Your task to perform on an android device: turn on notifications settings in the gmail app Image 0: 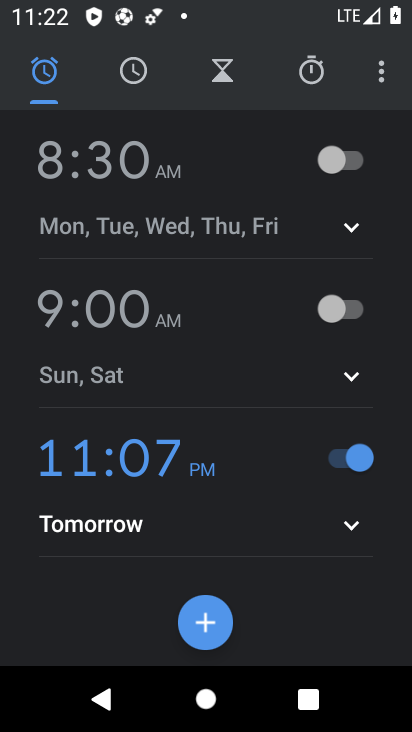
Step 0: press home button
Your task to perform on an android device: turn on notifications settings in the gmail app Image 1: 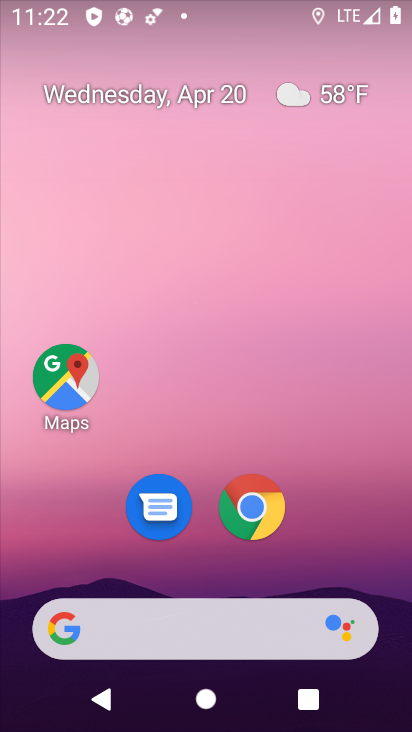
Step 1: drag from (332, 530) to (330, 100)
Your task to perform on an android device: turn on notifications settings in the gmail app Image 2: 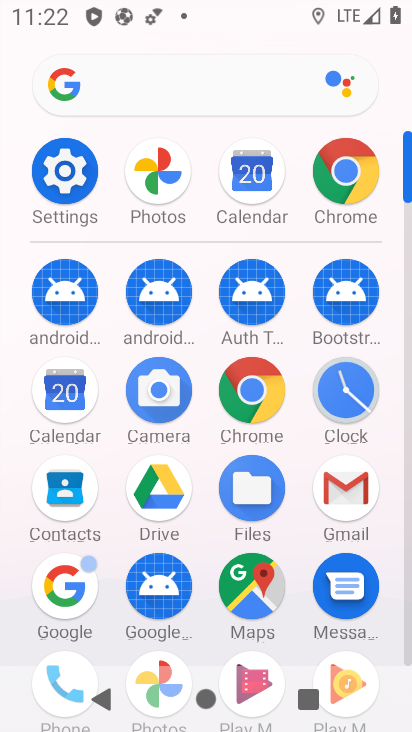
Step 2: click (364, 488)
Your task to perform on an android device: turn on notifications settings in the gmail app Image 3: 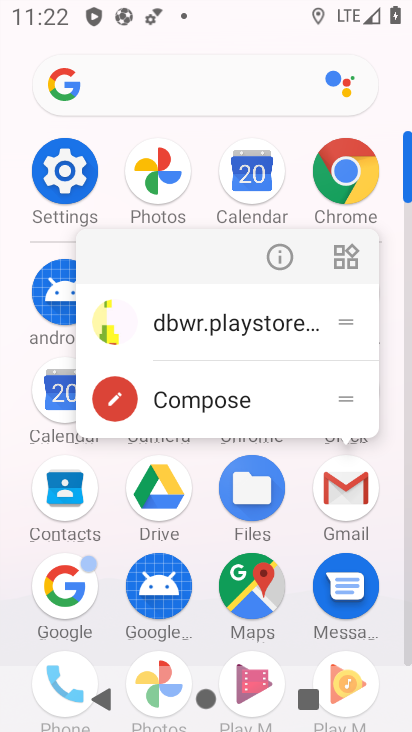
Step 3: click (343, 477)
Your task to perform on an android device: turn on notifications settings in the gmail app Image 4: 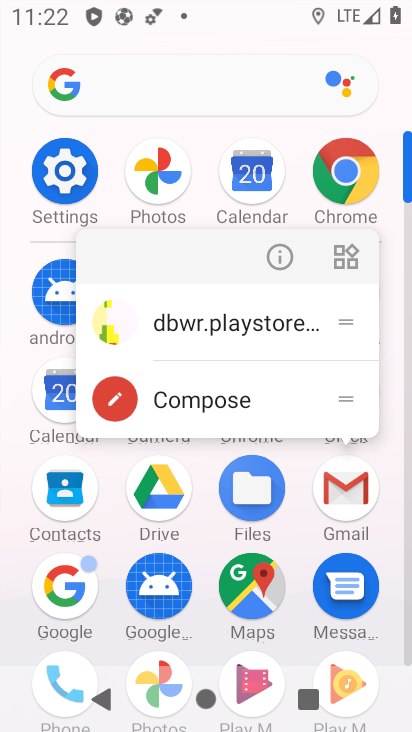
Step 4: click (352, 482)
Your task to perform on an android device: turn on notifications settings in the gmail app Image 5: 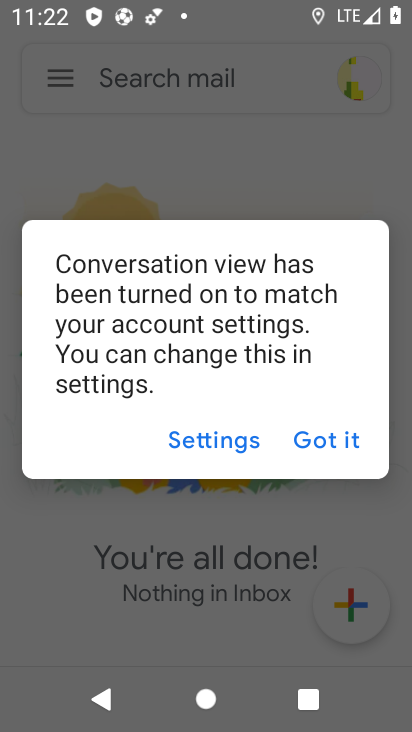
Step 5: click (346, 450)
Your task to perform on an android device: turn on notifications settings in the gmail app Image 6: 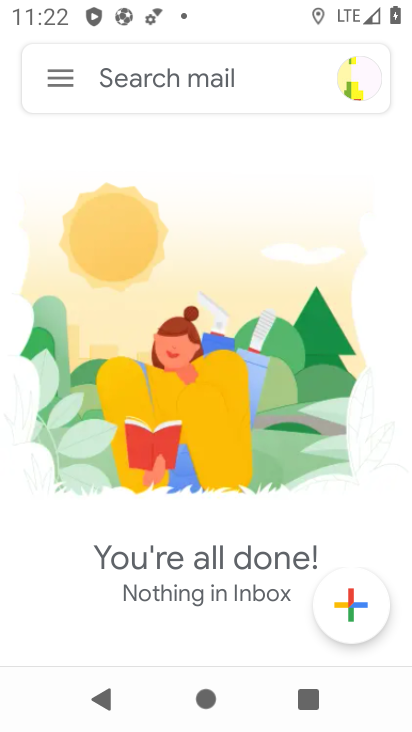
Step 6: click (52, 75)
Your task to perform on an android device: turn on notifications settings in the gmail app Image 7: 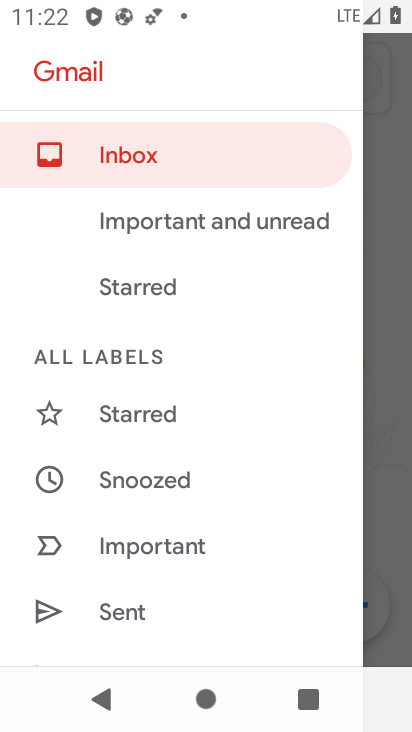
Step 7: drag from (260, 535) to (284, 331)
Your task to perform on an android device: turn on notifications settings in the gmail app Image 8: 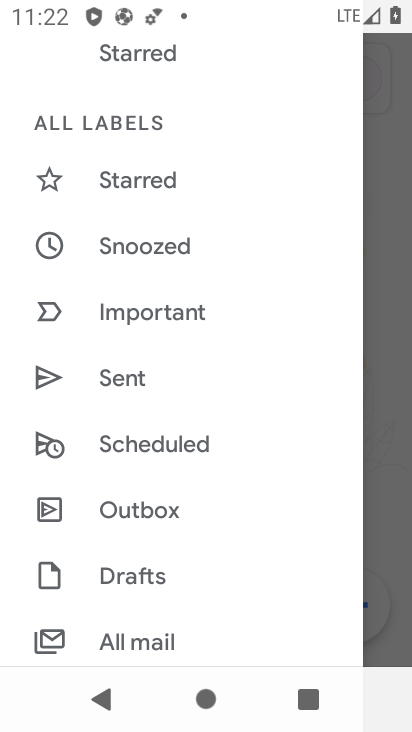
Step 8: drag from (293, 565) to (297, 365)
Your task to perform on an android device: turn on notifications settings in the gmail app Image 9: 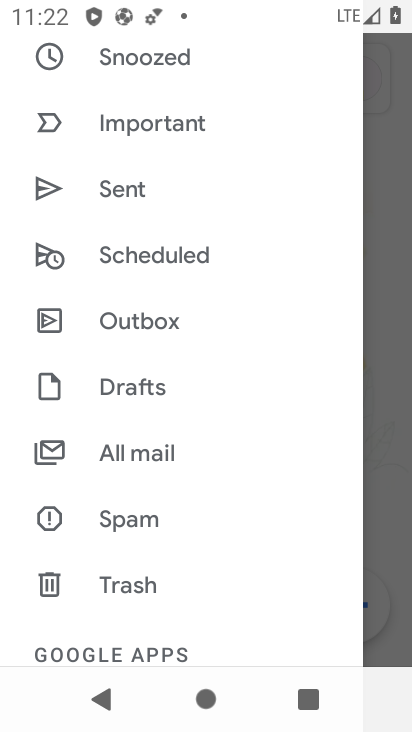
Step 9: drag from (273, 580) to (289, 406)
Your task to perform on an android device: turn on notifications settings in the gmail app Image 10: 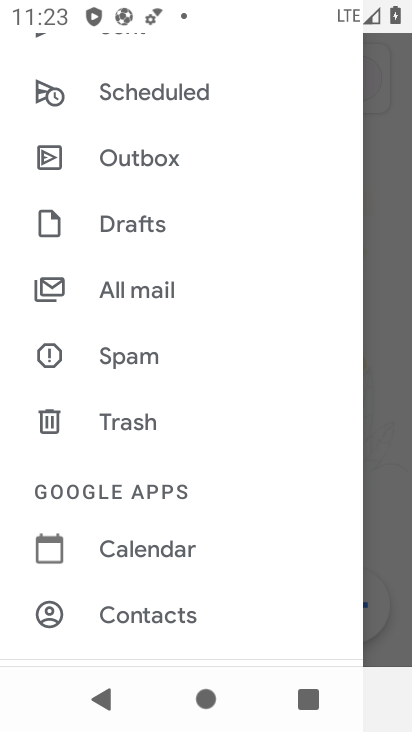
Step 10: drag from (287, 600) to (311, 360)
Your task to perform on an android device: turn on notifications settings in the gmail app Image 11: 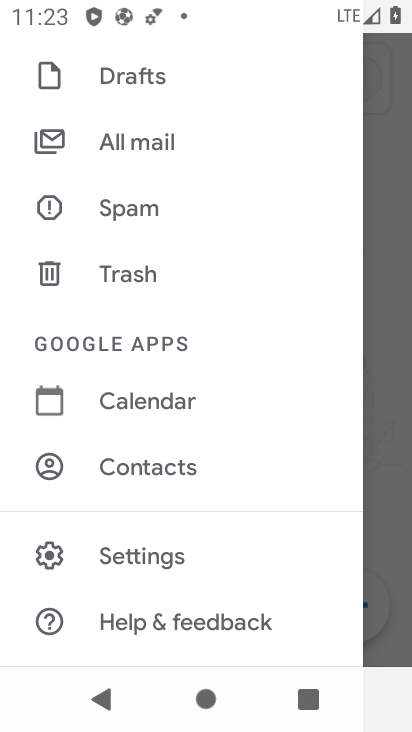
Step 11: click (177, 560)
Your task to perform on an android device: turn on notifications settings in the gmail app Image 12: 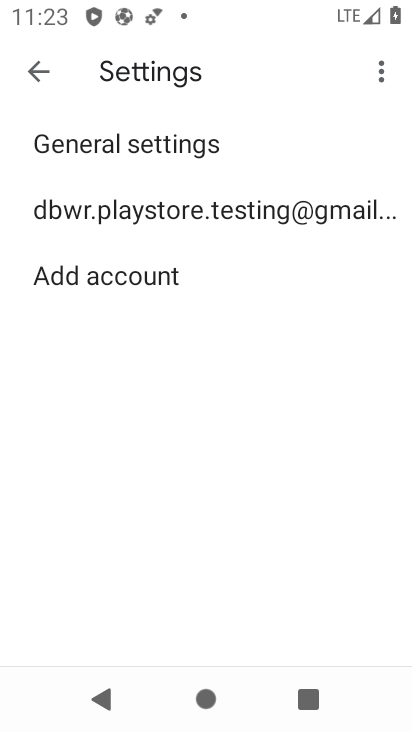
Step 12: click (294, 206)
Your task to perform on an android device: turn on notifications settings in the gmail app Image 13: 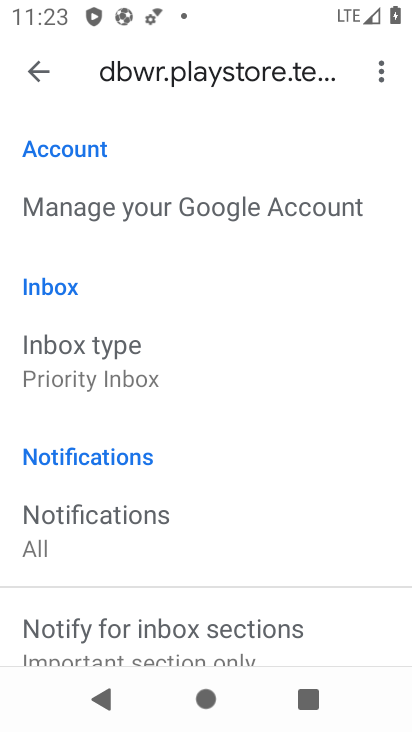
Step 13: drag from (329, 518) to (330, 325)
Your task to perform on an android device: turn on notifications settings in the gmail app Image 14: 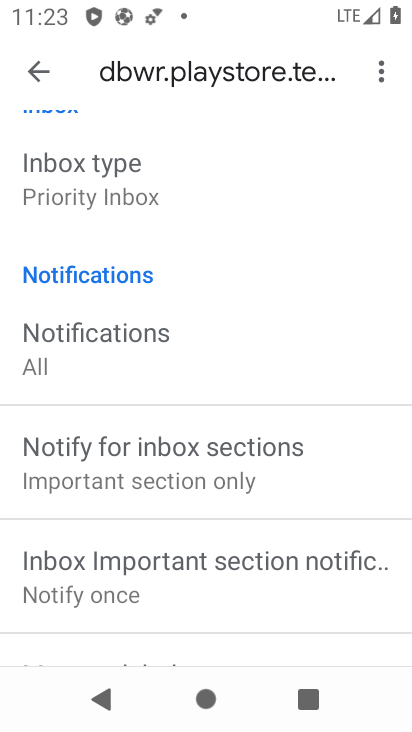
Step 14: drag from (328, 513) to (342, 315)
Your task to perform on an android device: turn on notifications settings in the gmail app Image 15: 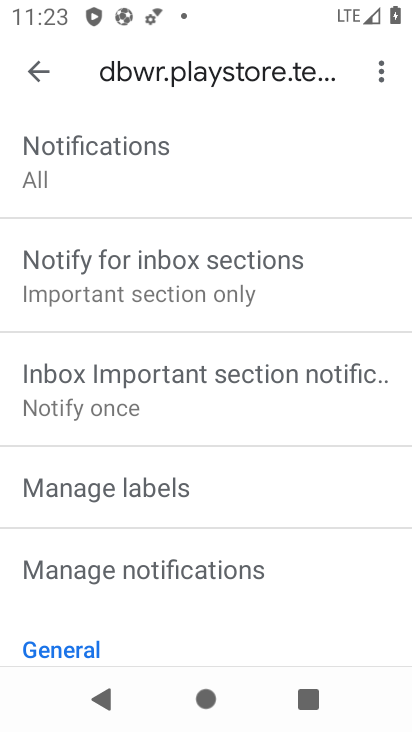
Step 15: drag from (352, 570) to (354, 415)
Your task to perform on an android device: turn on notifications settings in the gmail app Image 16: 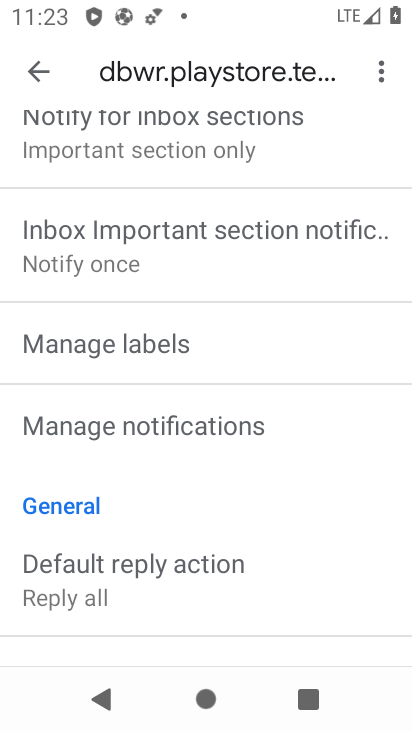
Step 16: click (230, 421)
Your task to perform on an android device: turn on notifications settings in the gmail app Image 17: 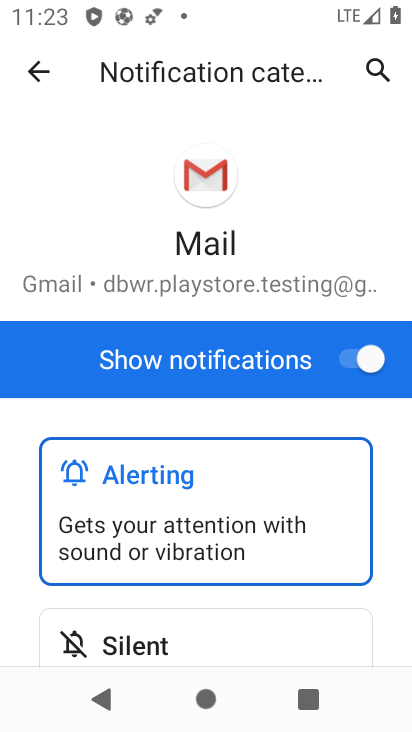
Step 17: task complete